Your task to perform on an android device: What's on my calendar tomorrow? Image 0: 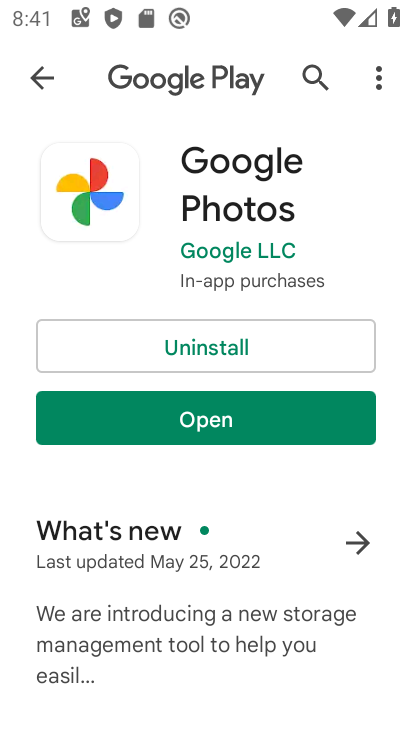
Step 0: press home button
Your task to perform on an android device: What's on my calendar tomorrow? Image 1: 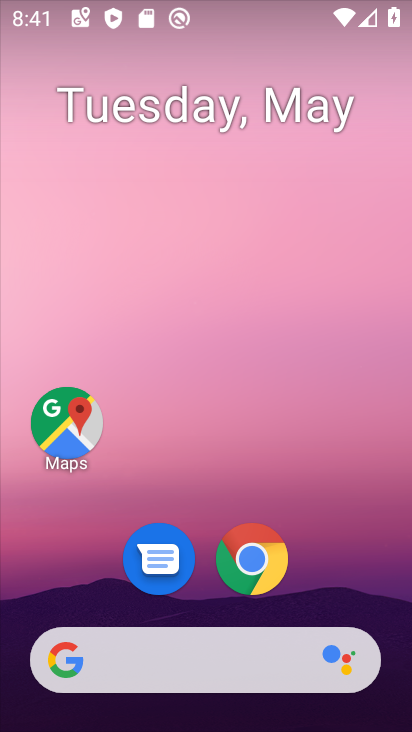
Step 1: drag from (321, 478) to (253, 77)
Your task to perform on an android device: What's on my calendar tomorrow? Image 2: 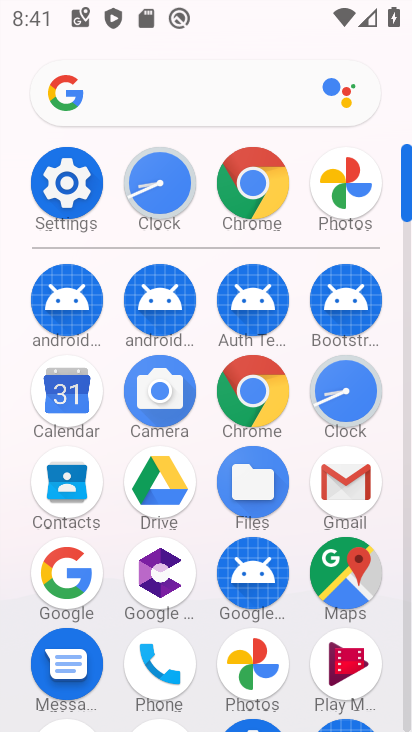
Step 2: click (70, 405)
Your task to perform on an android device: What's on my calendar tomorrow? Image 3: 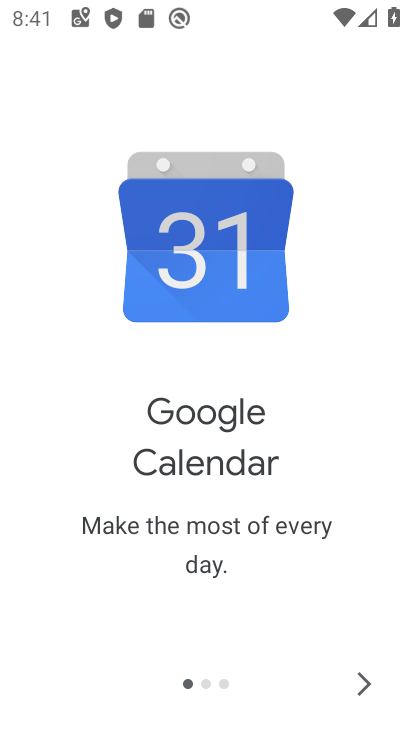
Step 3: click (376, 679)
Your task to perform on an android device: What's on my calendar tomorrow? Image 4: 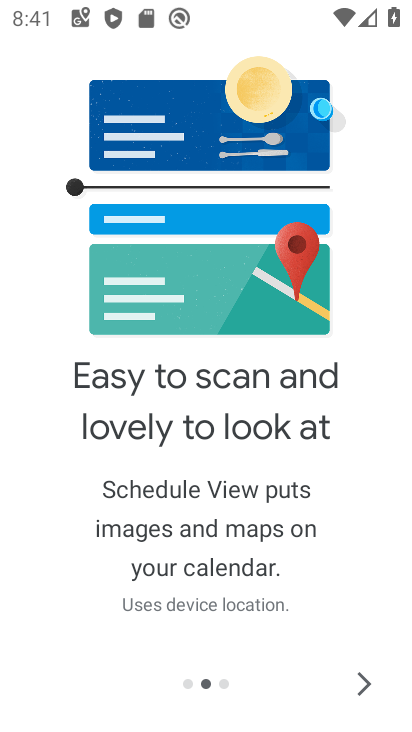
Step 4: click (376, 678)
Your task to perform on an android device: What's on my calendar tomorrow? Image 5: 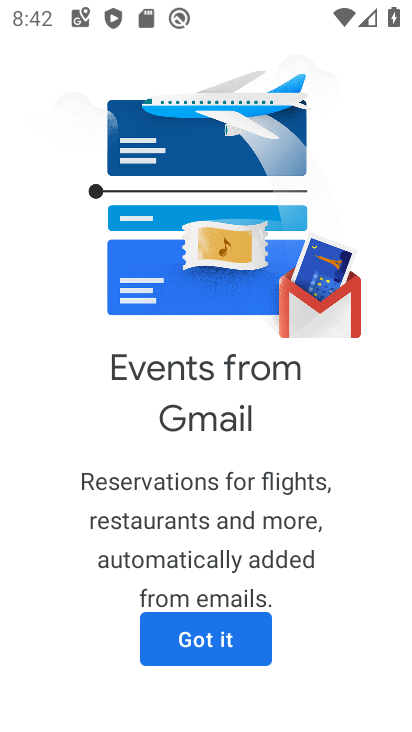
Step 5: click (190, 642)
Your task to perform on an android device: What's on my calendar tomorrow? Image 6: 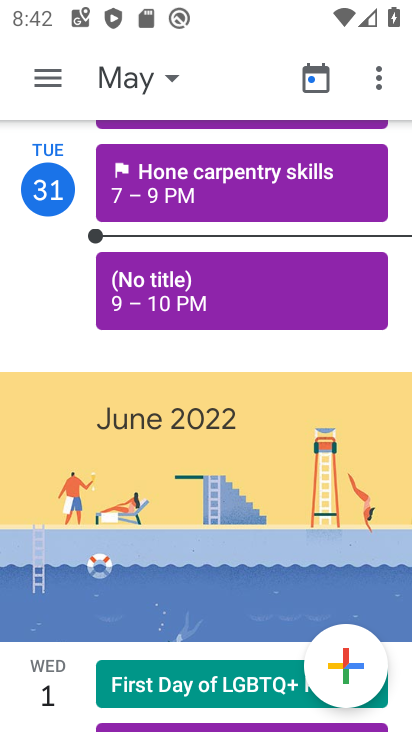
Step 6: click (154, 67)
Your task to perform on an android device: What's on my calendar tomorrow? Image 7: 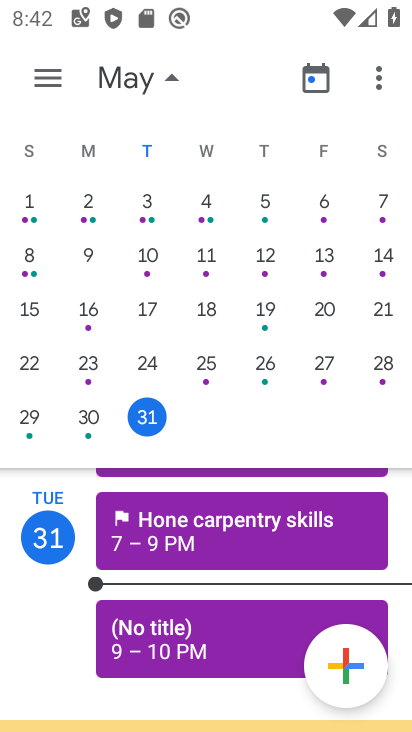
Step 7: drag from (289, 423) to (5, 370)
Your task to perform on an android device: What's on my calendar tomorrow? Image 8: 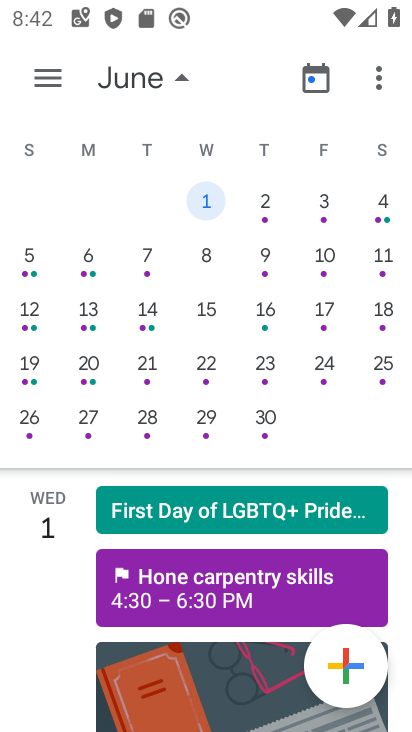
Step 8: click (204, 195)
Your task to perform on an android device: What's on my calendar tomorrow? Image 9: 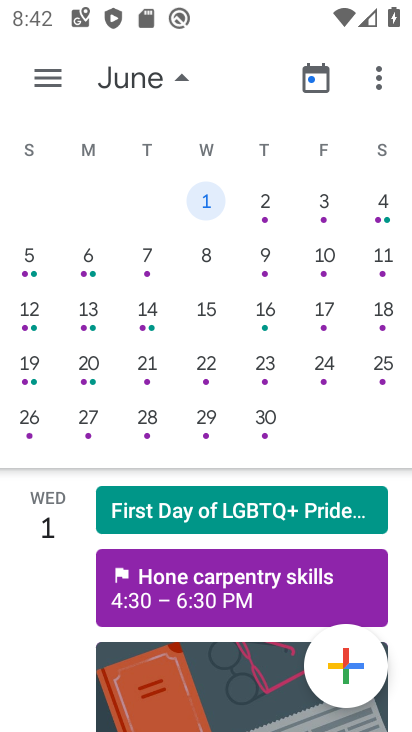
Step 9: task complete